Your task to perform on an android device: Open Yahoo.com Image 0: 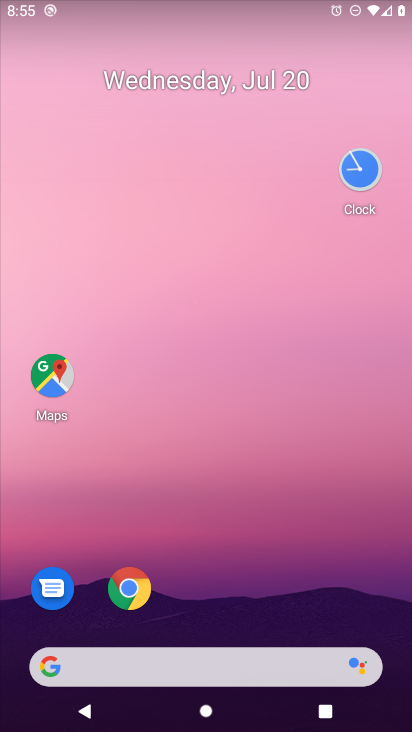
Step 0: click (79, 666)
Your task to perform on an android device: Open Yahoo.com Image 1: 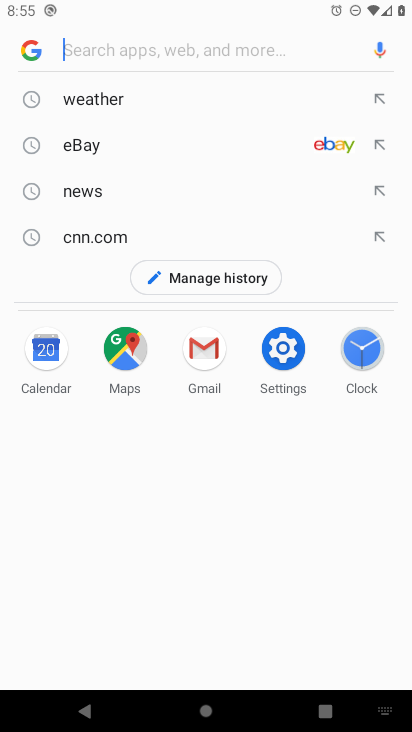
Step 1: type " Yahoo.com"
Your task to perform on an android device: Open Yahoo.com Image 2: 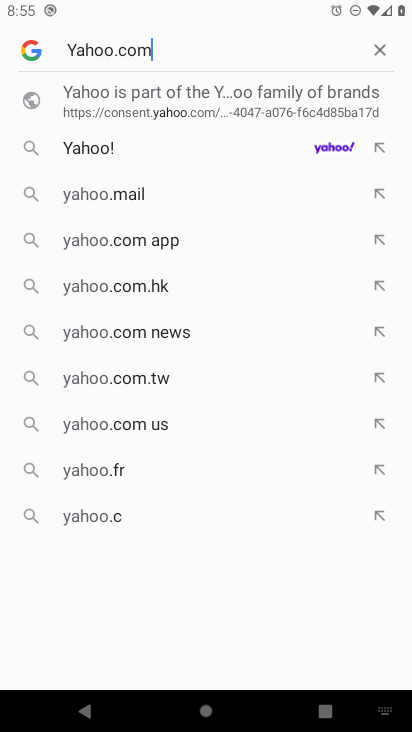
Step 2: type ""
Your task to perform on an android device: Open Yahoo.com Image 3: 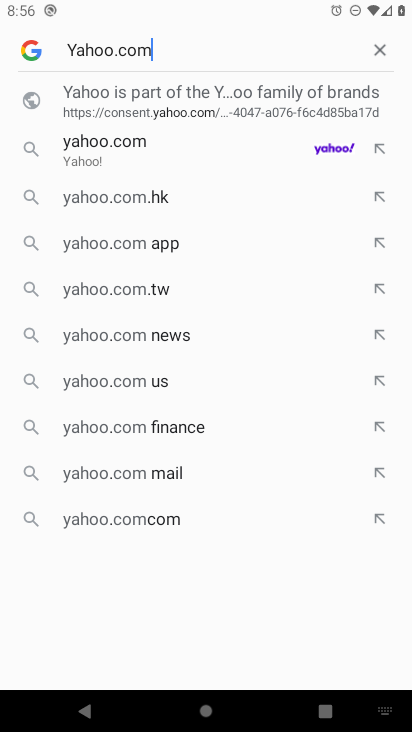
Step 3: click (175, 158)
Your task to perform on an android device: Open Yahoo.com Image 4: 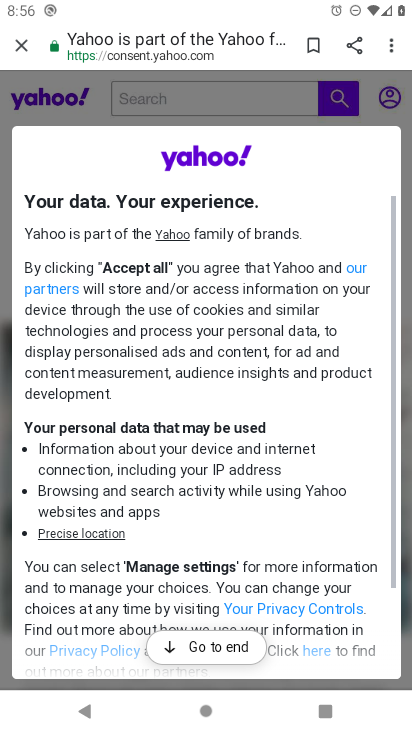
Step 4: task complete